Your task to perform on an android device: turn notification dots off Image 0: 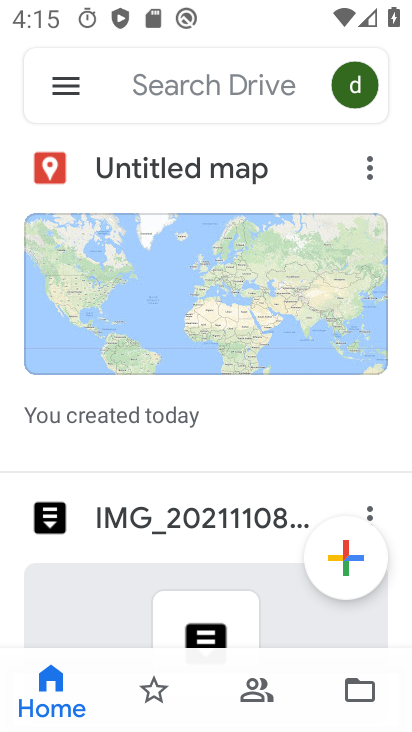
Step 0: press home button
Your task to perform on an android device: turn notification dots off Image 1: 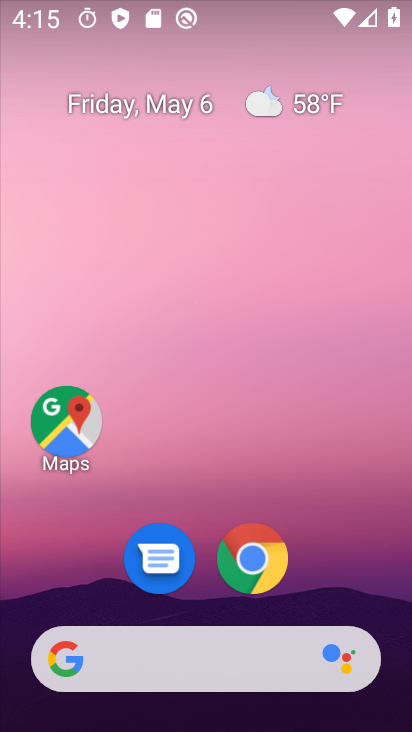
Step 1: drag from (365, 647) to (323, 75)
Your task to perform on an android device: turn notification dots off Image 2: 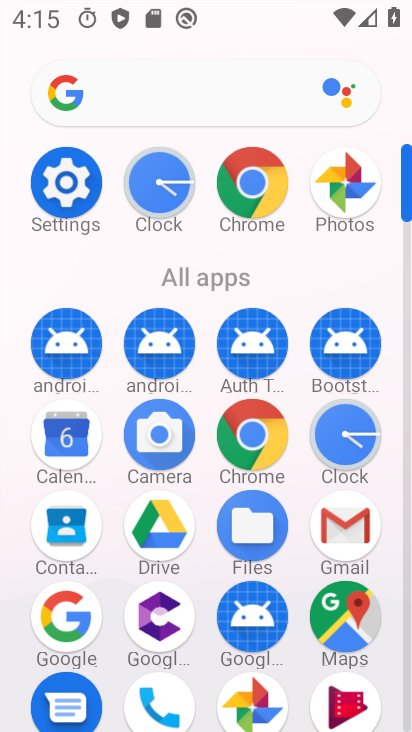
Step 2: click (93, 169)
Your task to perform on an android device: turn notification dots off Image 3: 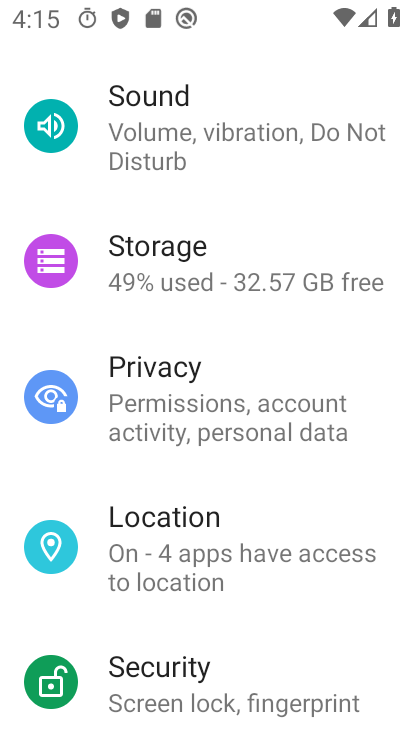
Step 3: drag from (284, 253) to (272, 690)
Your task to perform on an android device: turn notification dots off Image 4: 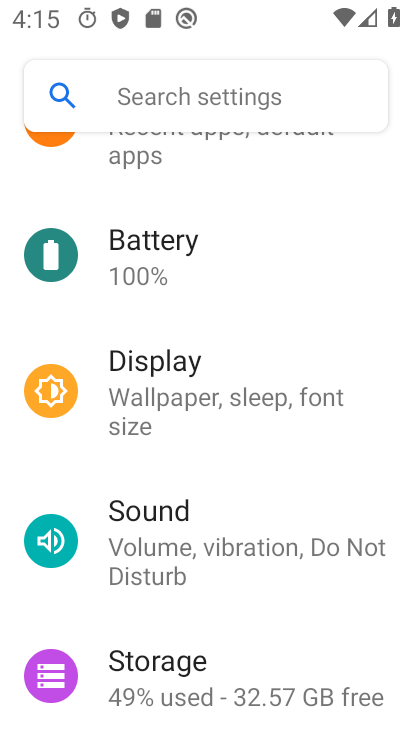
Step 4: drag from (224, 307) to (237, 668)
Your task to perform on an android device: turn notification dots off Image 5: 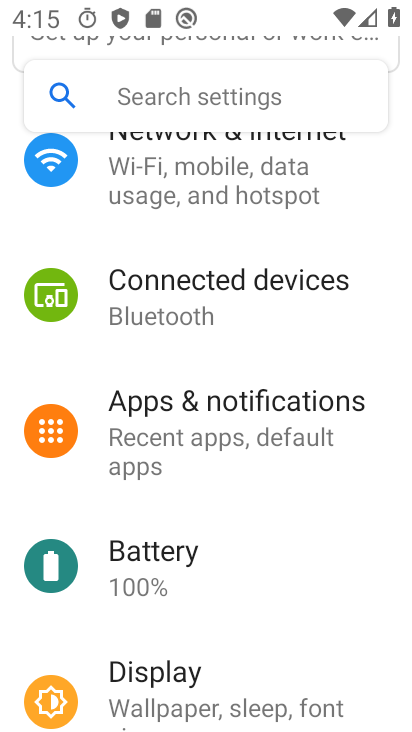
Step 5: click (270, 413)
Your task to perform on an android device: turn notification dots off Image 6: 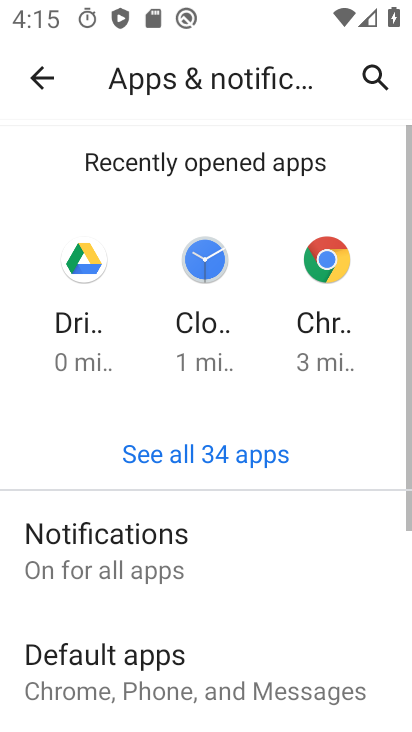
Step 6: drag from (266, 680) to (239, 5)
Your task to perform on an android device: turn notification dots off Image 7: 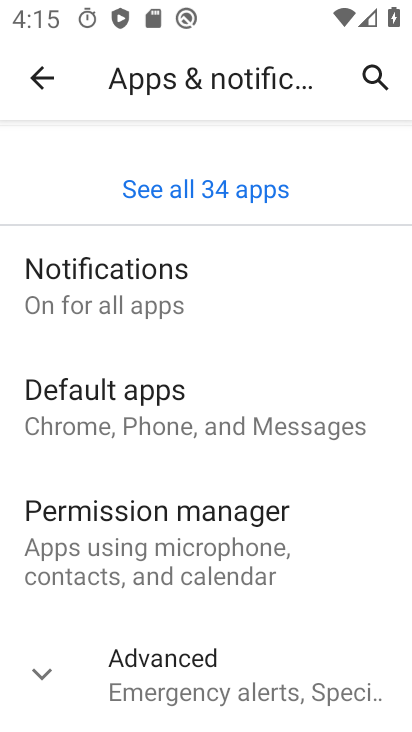
Step 7: click (143, 297)
Your task to perform on an android device: turn notification dots off Image 8: 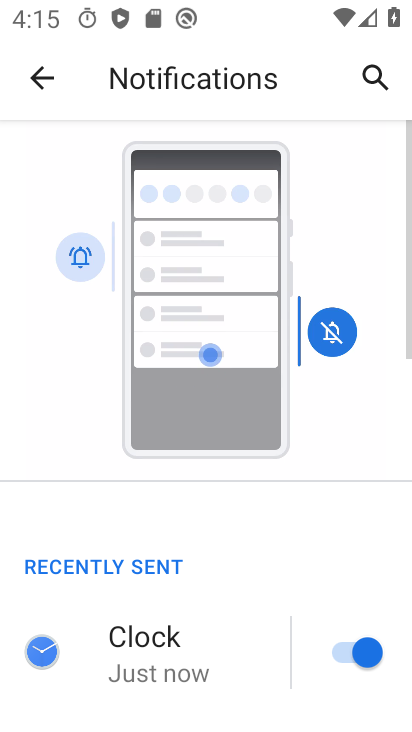
Step 8: drag from (261, 648) to (264, 92)
Your task to perform on an android device: turn notification dots off Image 9: 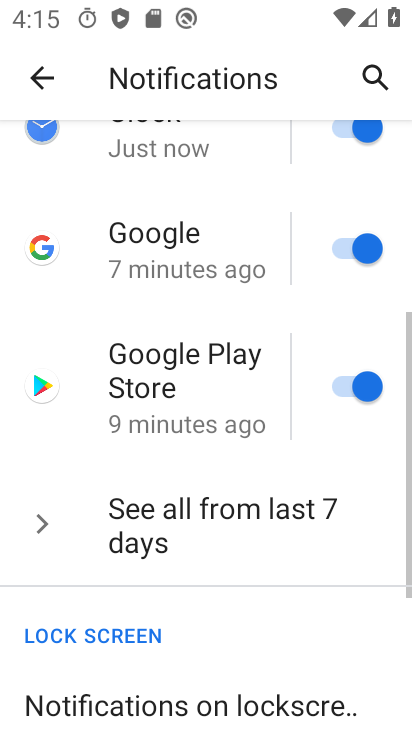
Step 9: drag from (226, 701) to (255, 237)
Your task to perform on an android device: turn notification dots off Image 10: 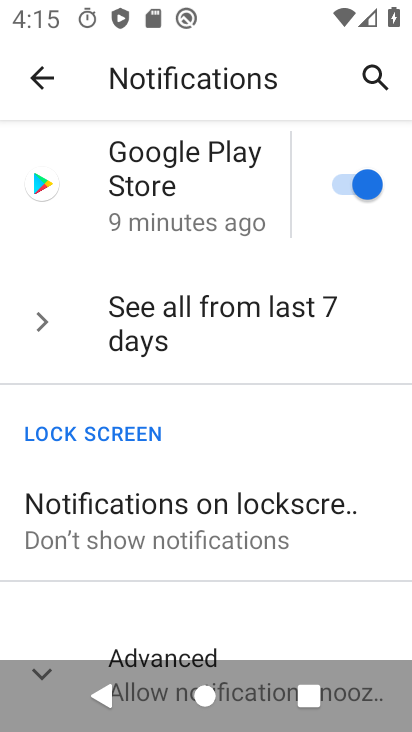
Step 10: click (269, 505)
Your task to perform on an android device: turn notification dots off Image 11: 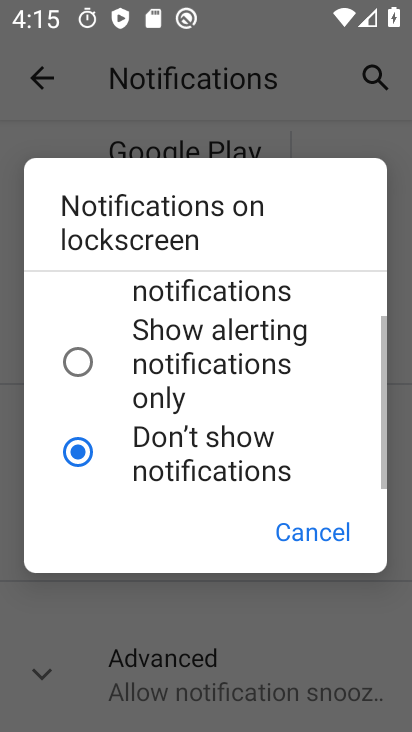
Step 11: click (271, 650)
Your task to perform on an android device: turn notification dots off Image 12: 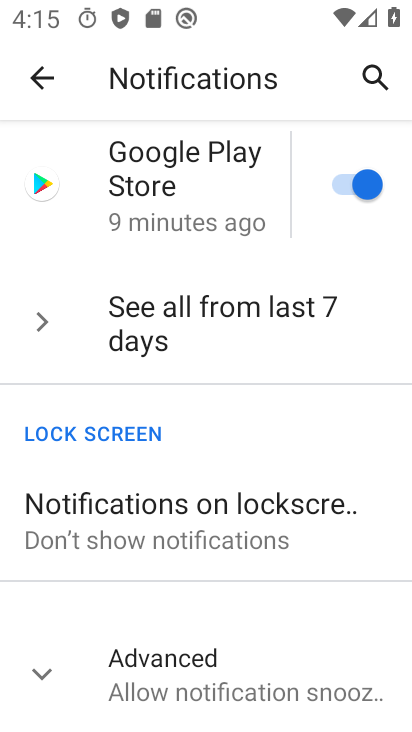
Step 12: click (276, 682)
Your task to perform on an android device: turn notification dots off Image 13: 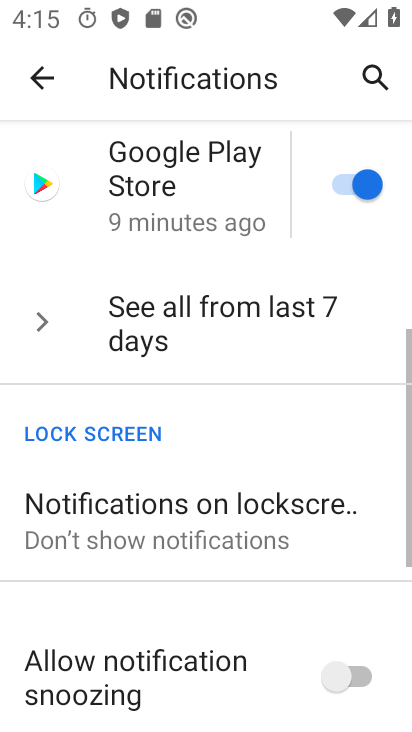
Step 13: task complete